Your task to perform on an android device: Open Amazon Image 0: 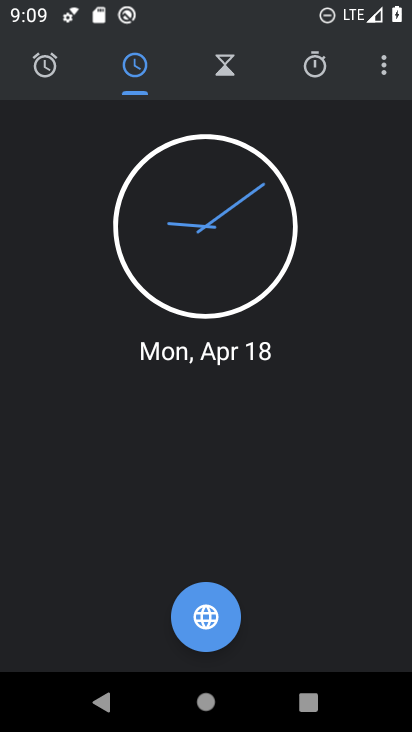
Step 0: press back button
Your task to perform on an android device: Open Amazon Image 1: 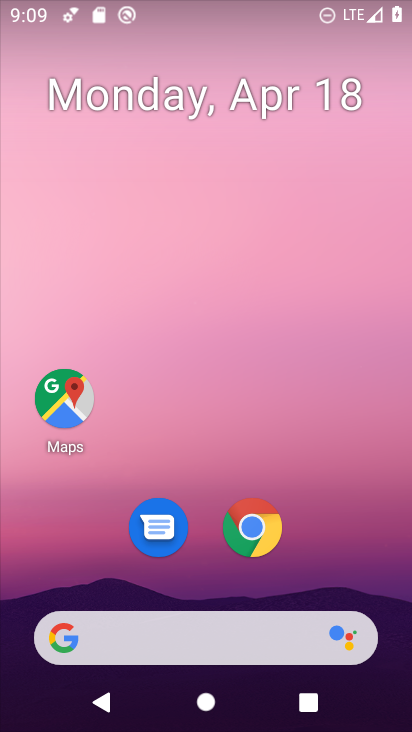
Step 1: drag from (323, 533) to (234, 8)
Your task to perform on an android device: Open Amazon Image 2: 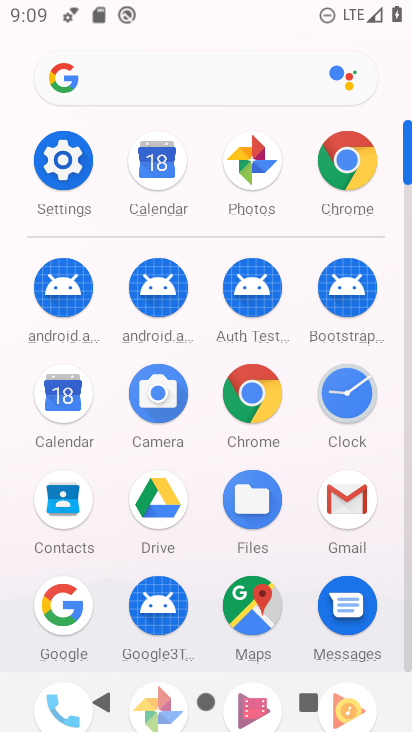
Step 2: drag from (3, 510) to (9, 276)
Your task to perform on an android device: Open Amazon Image 3: 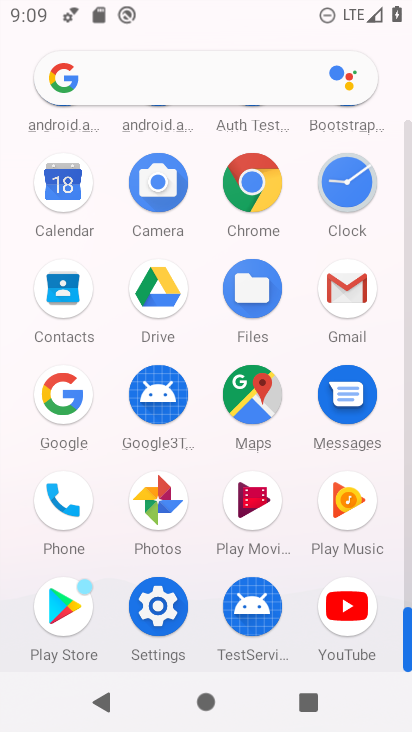
Step 3: click (247, 177)
Your task to perform on an android device: Open Amazon Image 4: 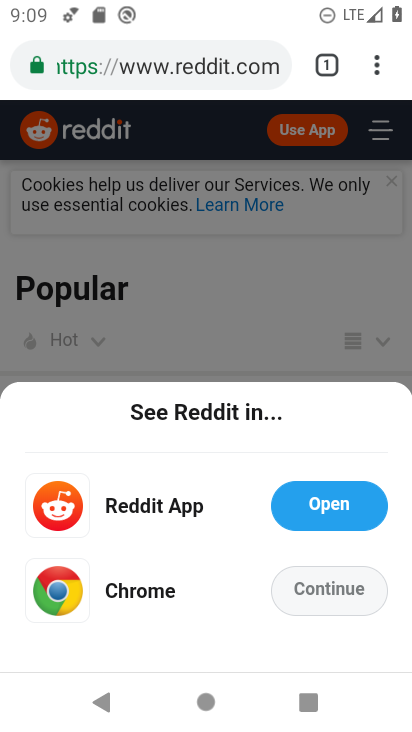
Step 4: click (153, 59)
Your task to perform on an android device: Open Amazon Image 5: 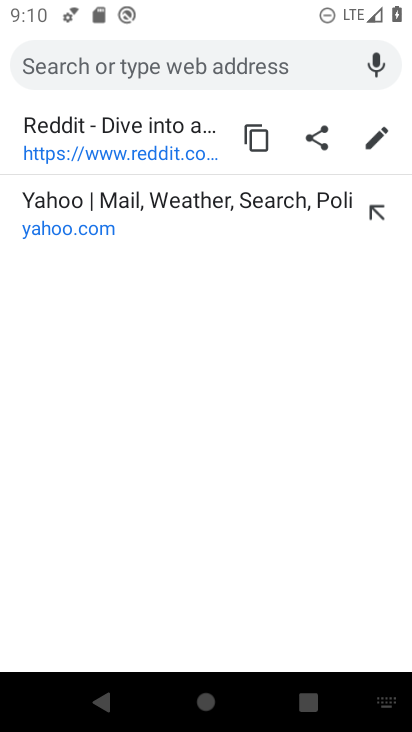
Step 5: type "amazon"
Your task to perform on an android device: Open Amazon Image 6: 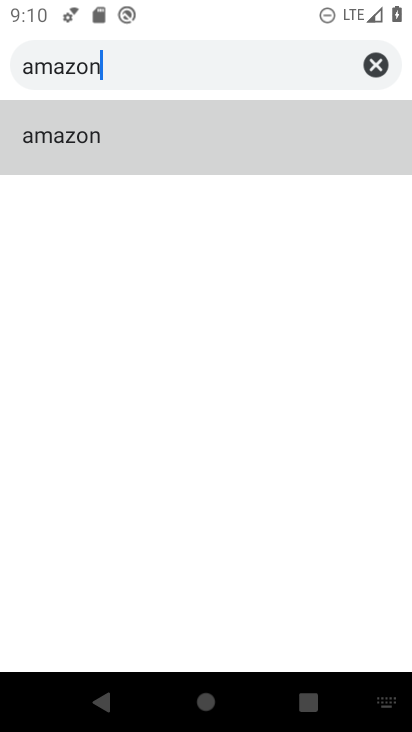
Step 6: click (73, 133)
Your task to perform on an android device: Open Amazon Image 7: 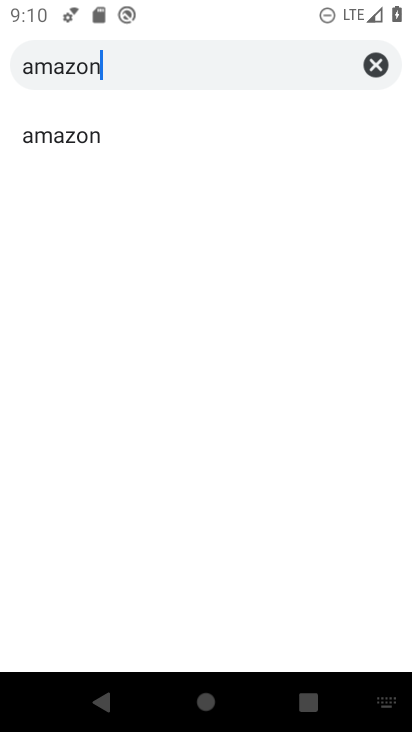
Step 7: click (73, 133)
Your task to perform on an android device: Open Amazon Image 8: 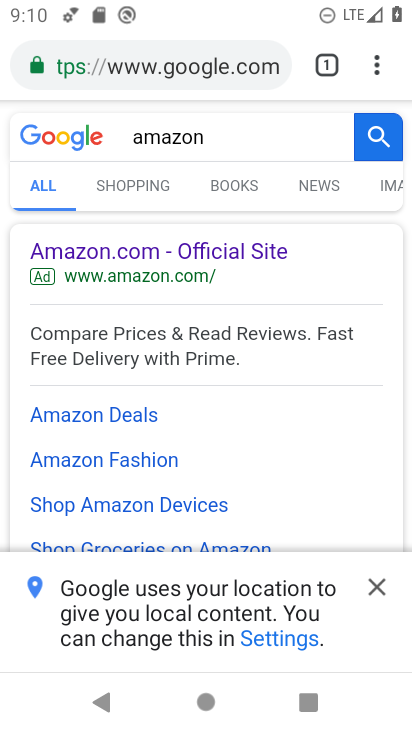
Step 8: click (139, 256)
Your task to perform on an android device: Open Amazon Image 9: 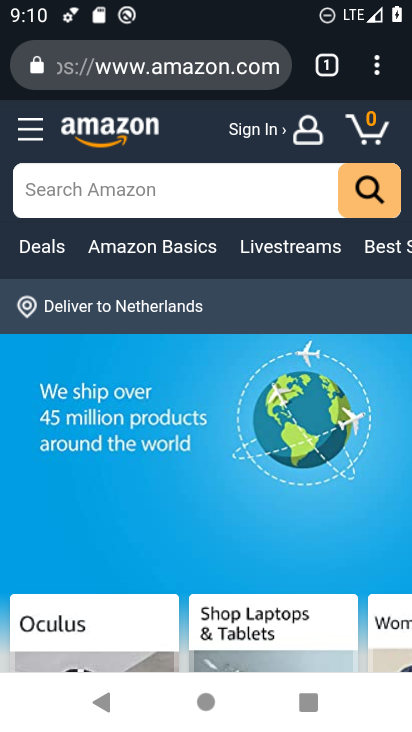
Step 9: task complete